Your task to perform on an android device: move an email to a new category in the gmail app Image 0: 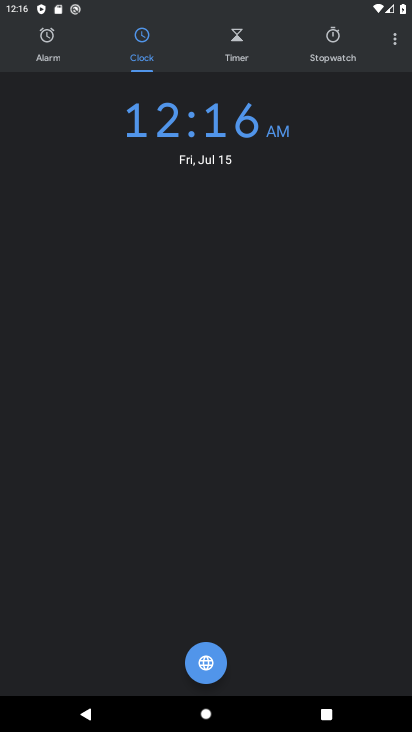
Step 0: press home button
Your task to perform on an android device: move an email to a new category in the gmail app Image 1: 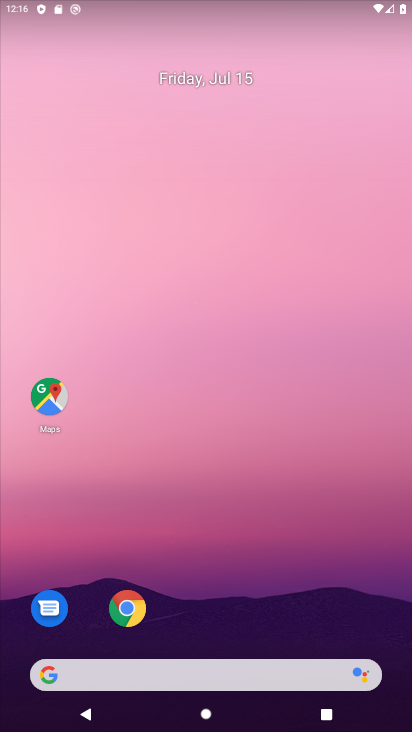
Step 1: drag from (293, 621) to (225, 143)
Your task to perform on an android device: move an email to a new category in the gmail app Image 2: 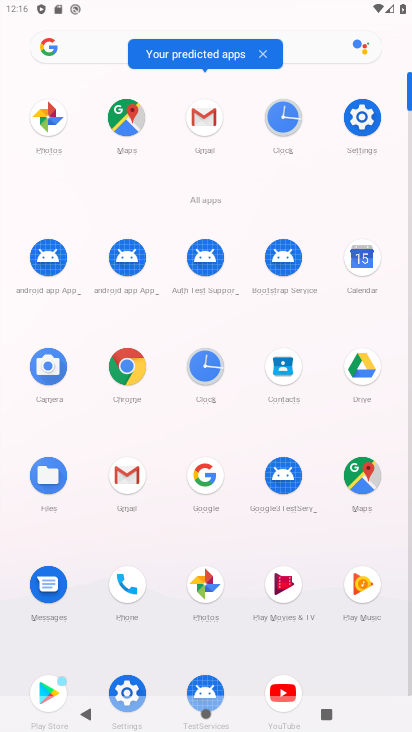
Step 2: click (190, 136)
Your task to perform on an android device: move an email to a new category in the gmail app Image 3: 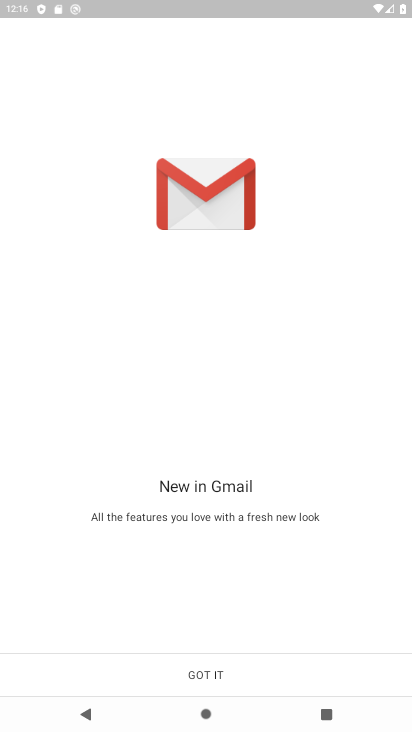
Step 3: click (212, 674)
Your task to perform on an android device: move an email to a new category in the gmail app Image 4: 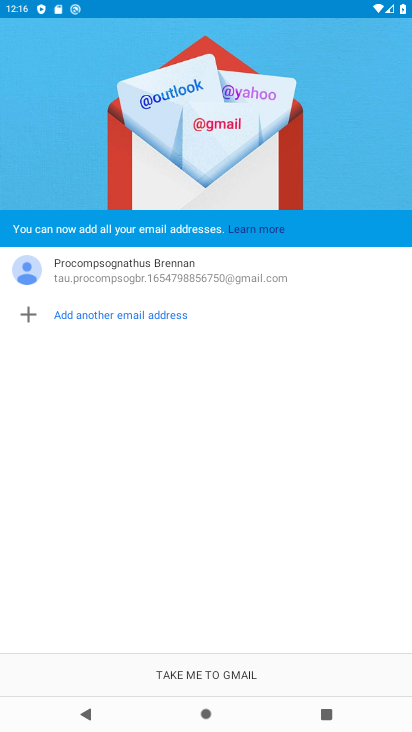
Step 4: click (212, 674)
Your task to perform on an android device: move an email to a new category in the gmail app Image 5: 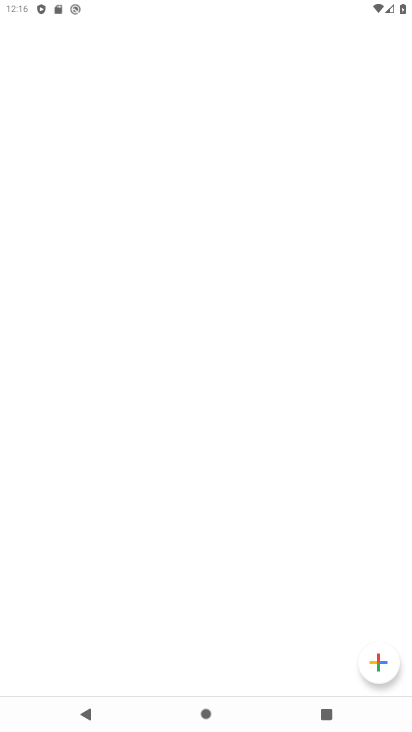
Step 5: click (212, 674)
Your task to perform on an android device: move an email to a new category in the gmail app Image 6: 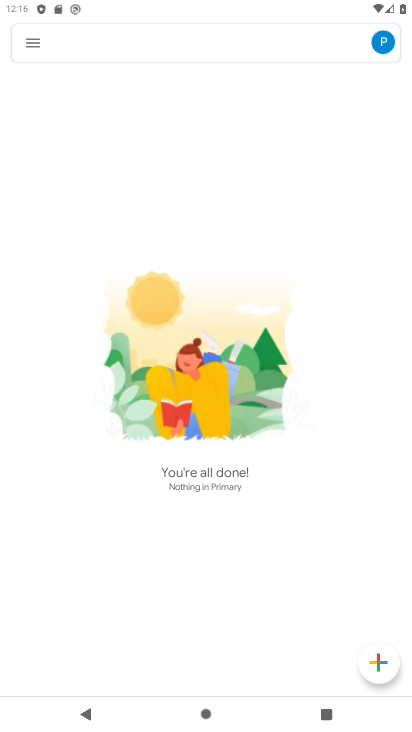
Step 6: task complete